Your task to perform on an android device: Go to Yahoo.com Image 0: 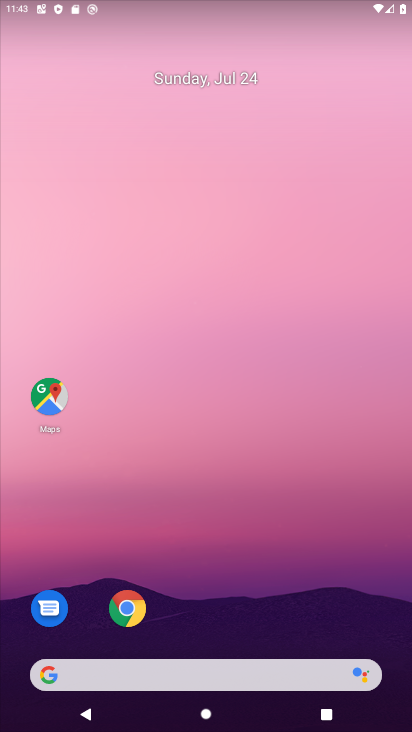
Step 0: click (106, 671)
Your task to perform on an android device: Go to Yahoo.com Image 1: 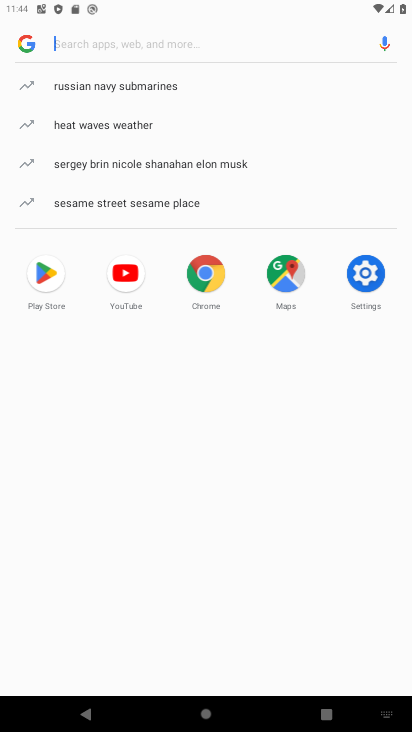
Step 1: click (72, 51)
Your task to perform on an android device: Go to Yahoo.com Image 2: 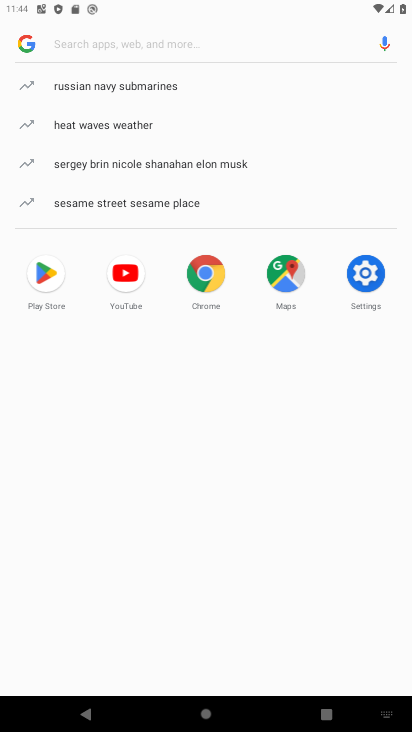
Step 2: type "yahoo.com"
Your task to perform on an android device: Go to Yahoo.com Image 3: 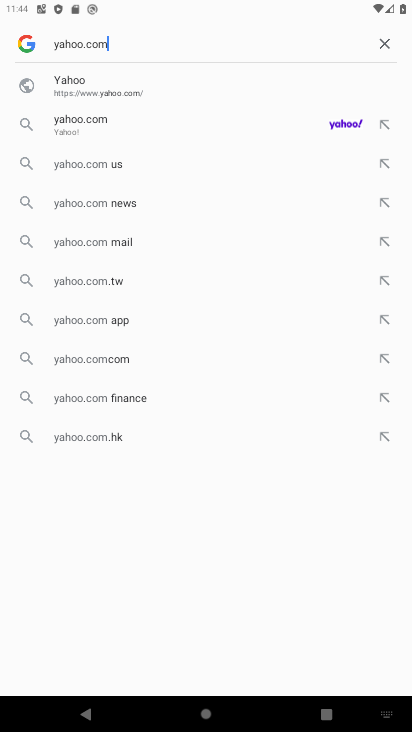
Step 3: click (83, 95)
Your task to perform on an android device: Go to Yahoo.com Image 4: 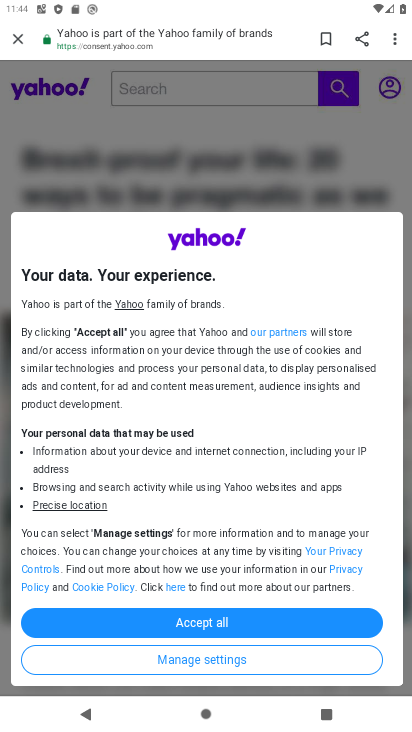
Step 4: task complete